Your task to perform on an android device: turn on the 12-hour format for clock Image 0: 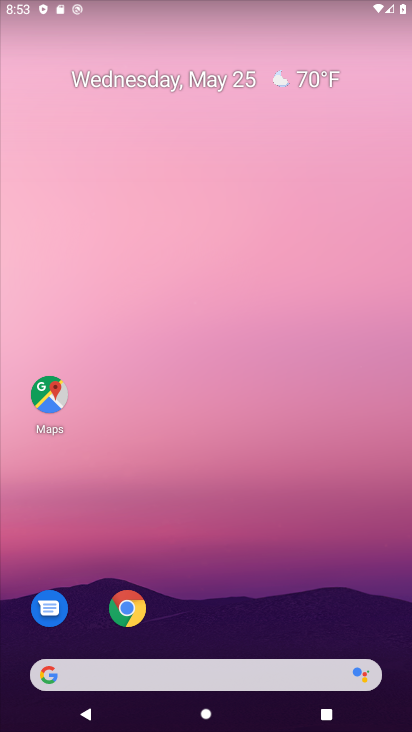
Step 0: click (214, 27)
Your task to perform on an android device: turn on the 12-hour format for clock Image 1: 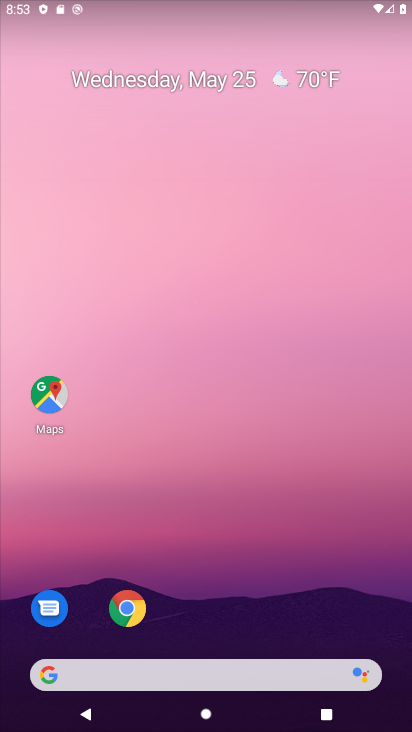
Step 1: click (157, 14)
Your task to perform on an android device: turn on the 12-hour format for clock Image 2: 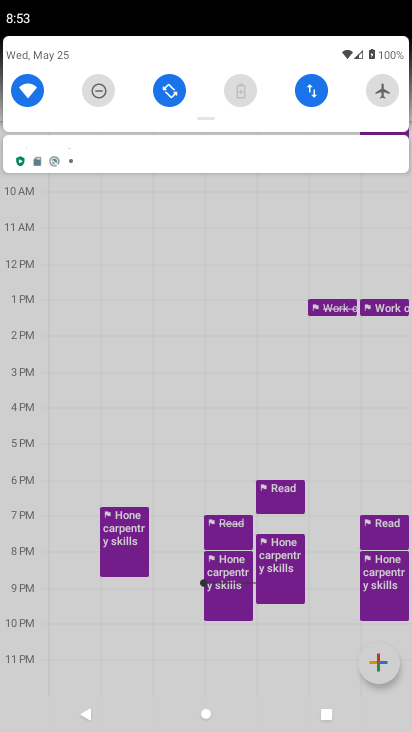
Step 2: press home button
Your task to perform on an android device: turn on the 12-hour format for clock Image 3: 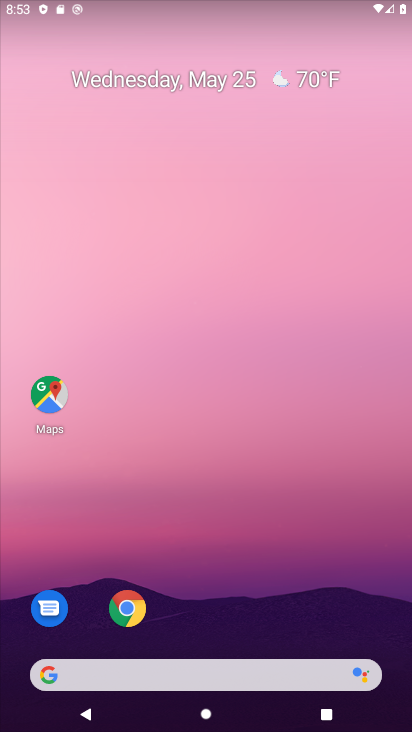
Step 3: drag from (243, 503) to (213, 7)
Your task to perform on an android device: turn on the 12-hour format for clock Image 4: 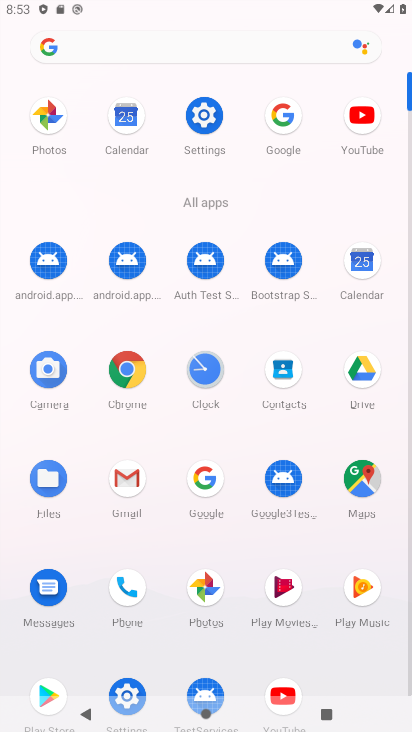
Step 4: click (199, 373)
Your task to perform on an android device: turn on the 12-hour format for clock Image 5: 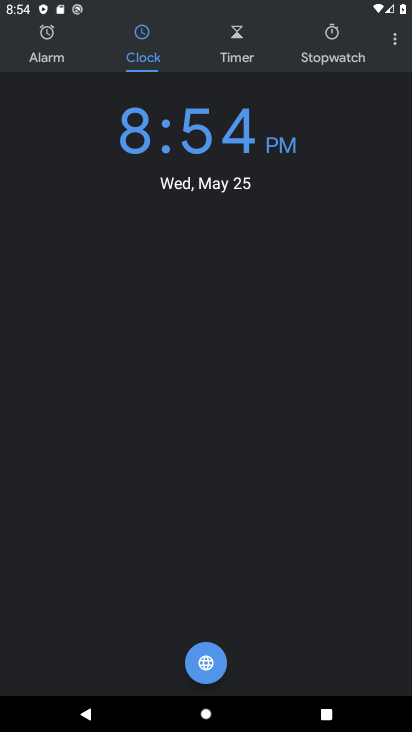
Step 5: click (394, 46)
Your task to perform on an android device: turn on the 12-hour format for clock Image 6: 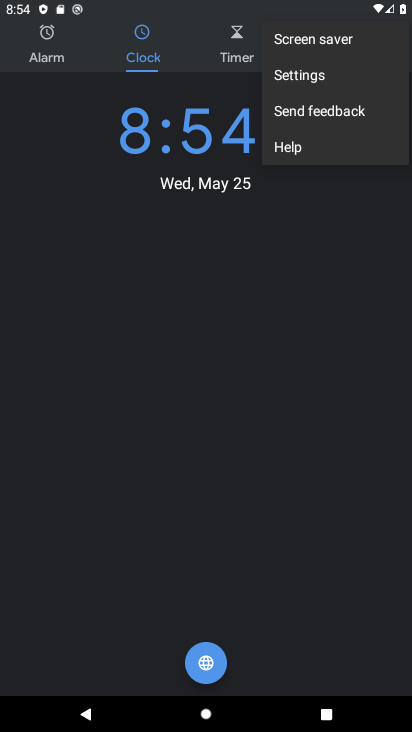
Step 6: click (275, 82)
Your task to perform on an android device: turn on the 12-hour format for clock Image 7: 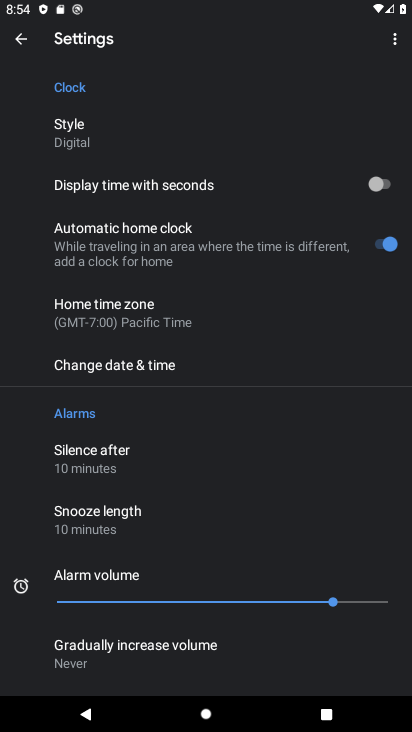
Step 7: click (184, 363)
Your task to perform on an android device: turn on the 12-hour format for clock Image 8: 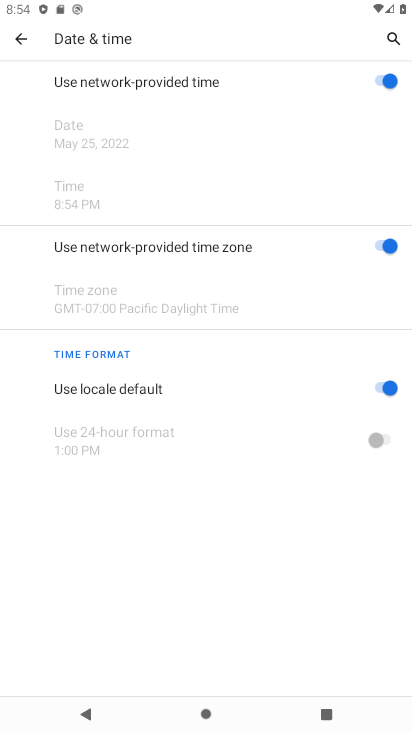
Step 8: task complete